Your task to perform on an android device: Open the calendar app, open the side menu, and click the "Day" option Image 0: 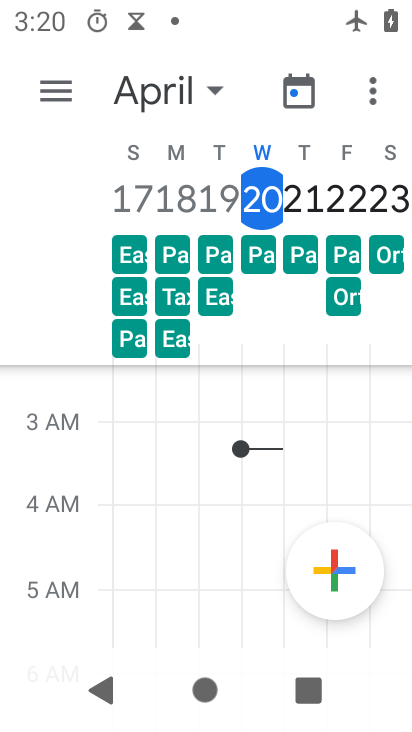
Step 0: press home button
Your task to perform on an android device: Open the calendar app, open the side menu, and click the "Day" option Image 1: 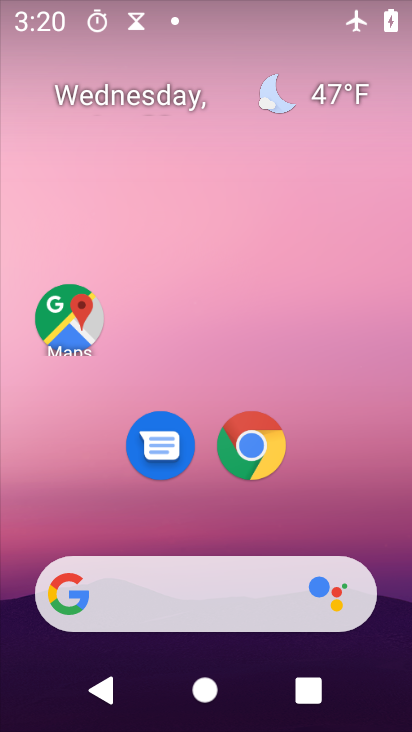
Step 1: drag from (389, 566) to (344, 12)
Your task to perform on an android device: Open the calendar app, open the side menu, and click the "Day" option Image 2: 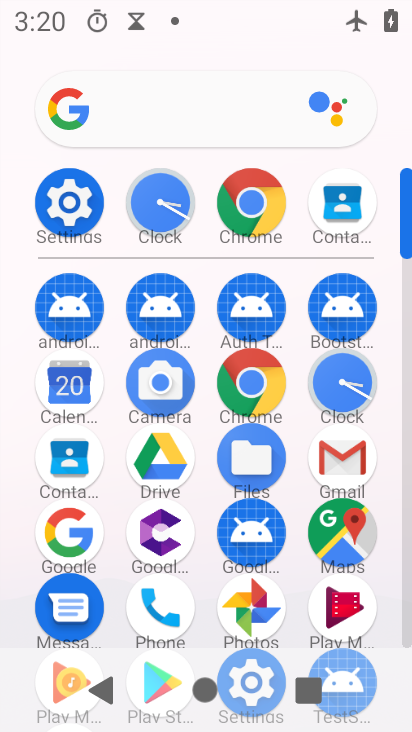
Step 2: click (68, 377)
Your task to perform on an android device: Open the calendar app, open the side menu, and click the "Day" option Image 3: 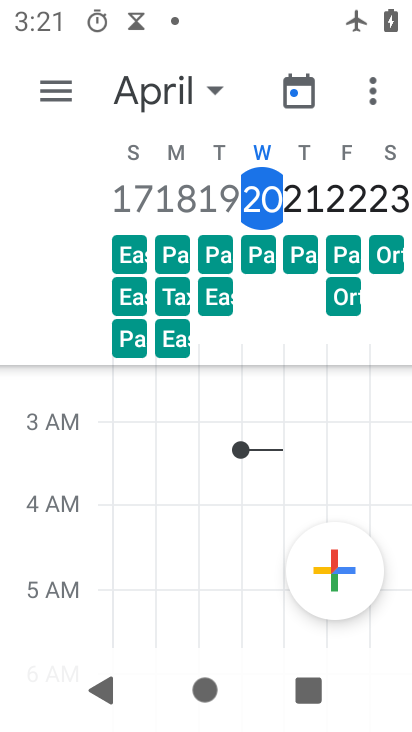
Step 3: click (56, 103)
Your task to perform on an android device: Open the calendar app, open the side menu, and click the "Day" option Image 4: 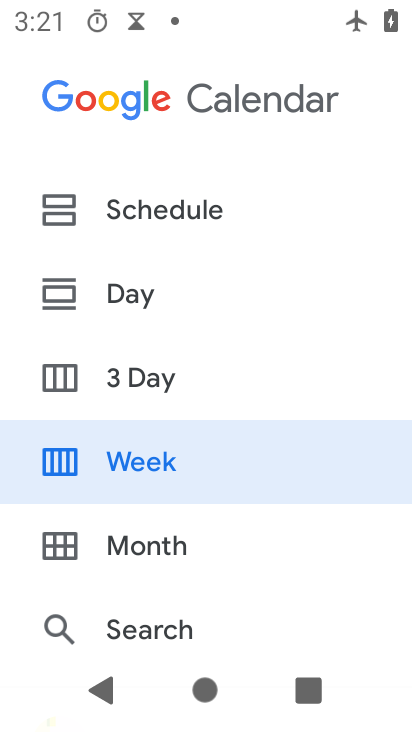
Step 4: click (136, 294)
Your task to perform on an android device: Open the calendar app, open the side menu, and click the "Day" option Image 5: 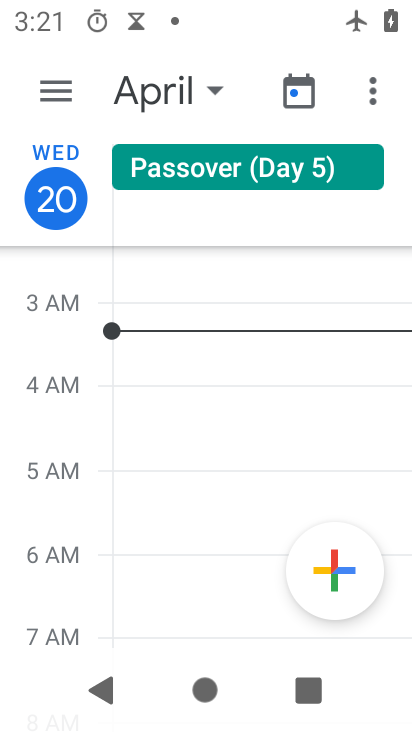
Step 5: task complete